Your task to perform on an android device: Go to settings Image 0: 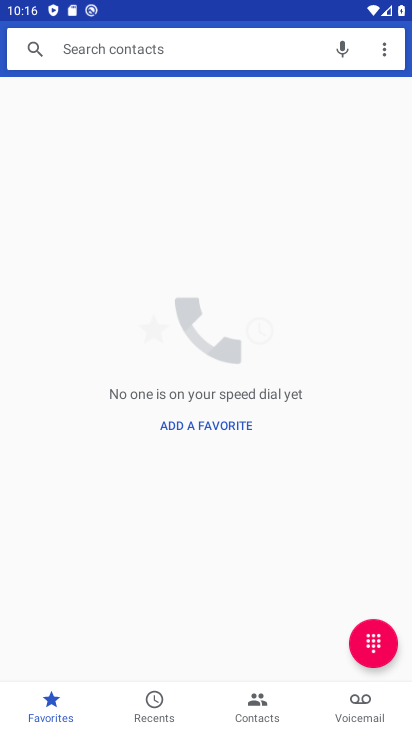
Step 0: press home button
Your task to perform on an android device: Go to settings Image 1: 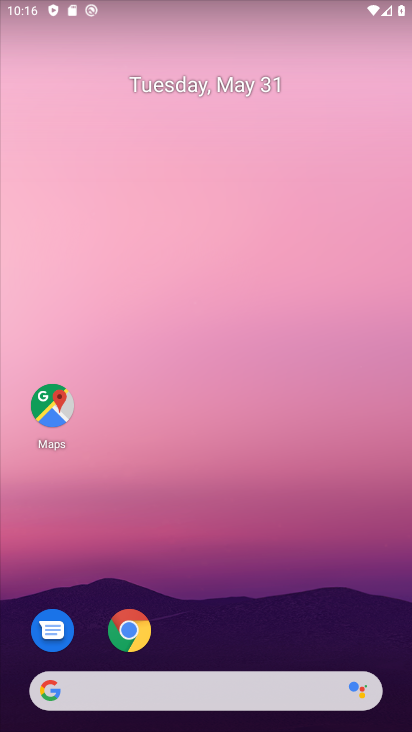
Step 1: drag from (257, 565) to (235, 111)
Your task to perform on an android device: Go to settings Image 2: 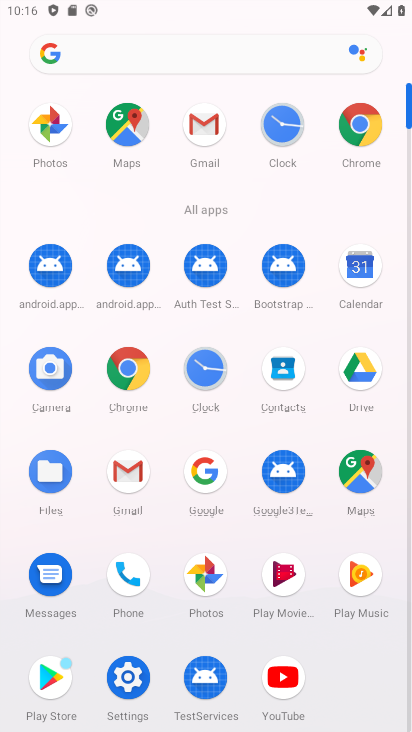
Step 2: click (126, 662)
Your task to perform on an android device: Go to settings Image 3: 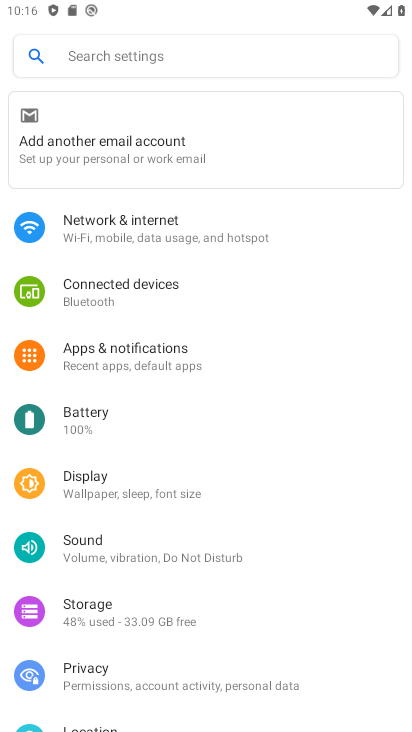
Step 3: task complete